Your task to perform on an android device: Go to Google Image 0: 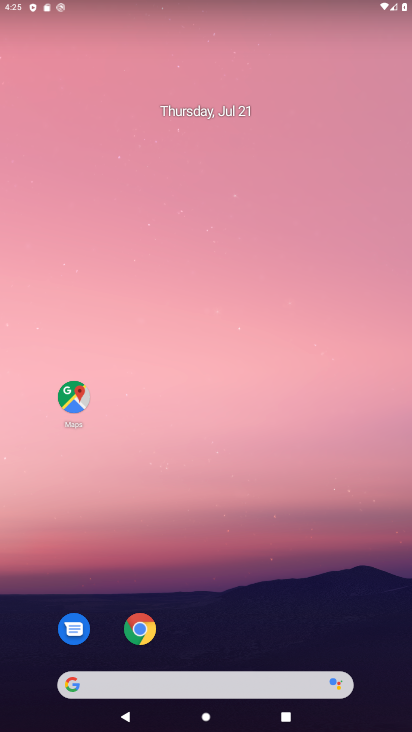
Step 0: drag from (205, 625) to (224, 90)
Your task to perform on an android device: Go to Google Image 1: 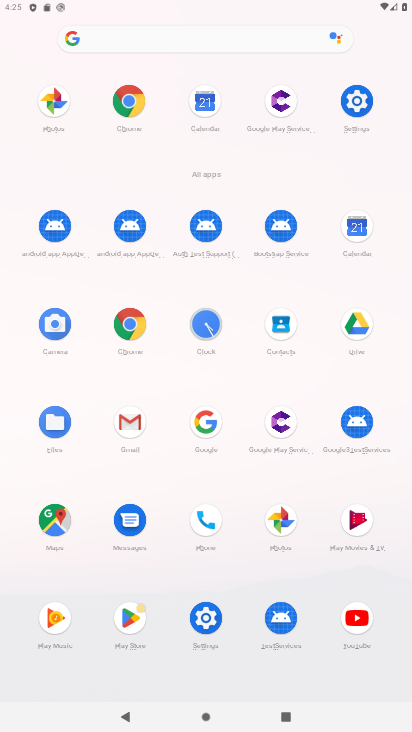
Step 1: click (208, 418)
Your task to perform on an android device: Go to Google Image 2: 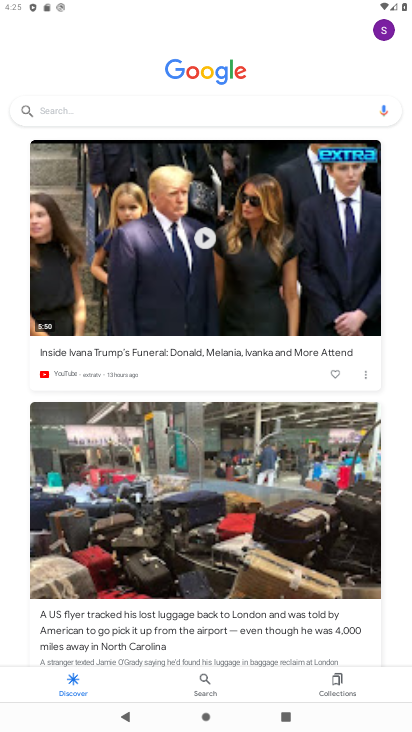
Step 2: click (385, 26)
Your task to perform on an android device: Go to Google Image 3: 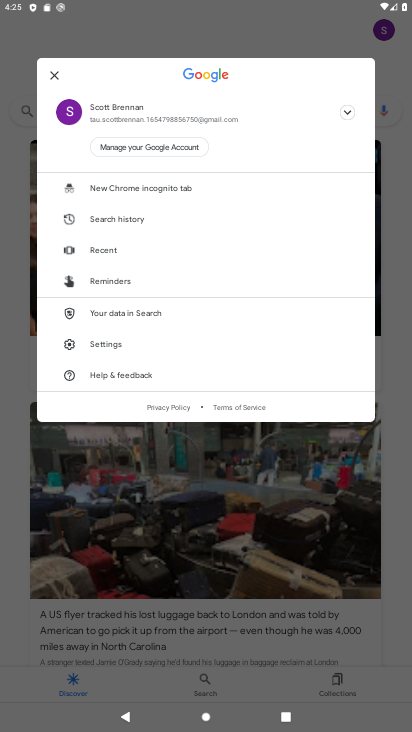
Step 3: click (281, 564)
Your task to perform on an android device: Go to Google Image 4: 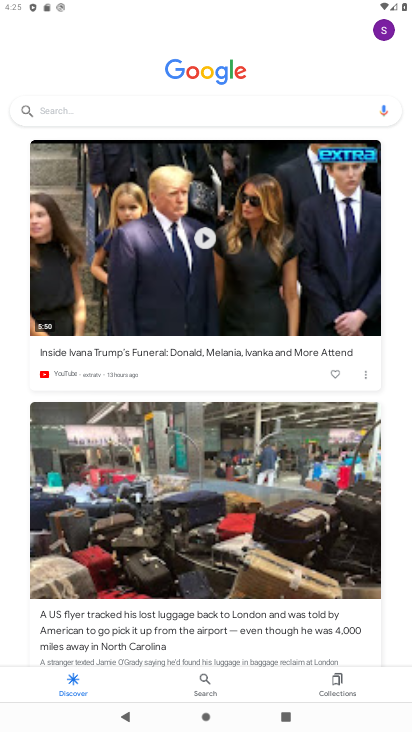
Step 4: task complete